Your task to perform on an android device: change the upload size in google photos Image 0: 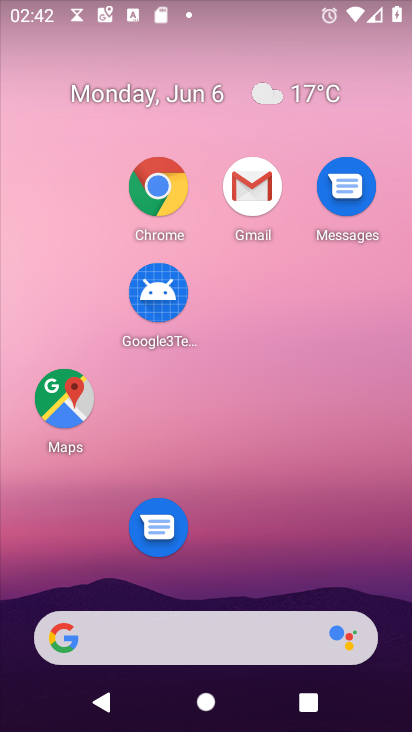
Step 0: drag from (361, 447) to (337, 174)
Your task to perform on an android device: change the upload size in google photos Image 1: 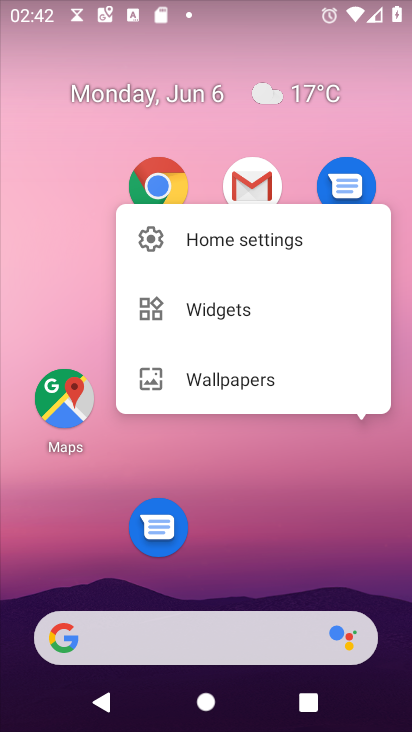
Step 1: click (333, 480)
Your task to perform on an android device: change the upload size in google photos Image 2: 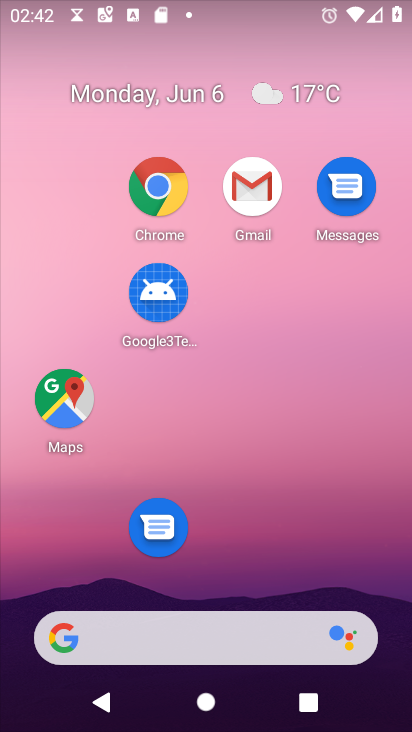
Step 2: drag from (336, 518) to (295, 65)
Your task to perform on an android device: change the upload size in google photos Image 3: 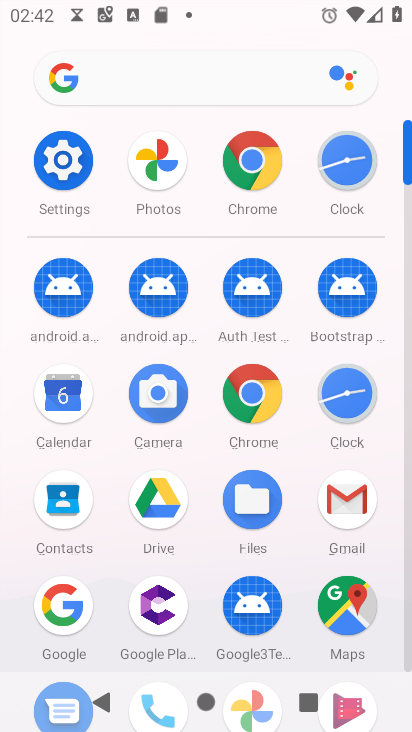
Step 3: click (406, 544)
Your task to perform on an android device: change the upload size in google photos Image 4: 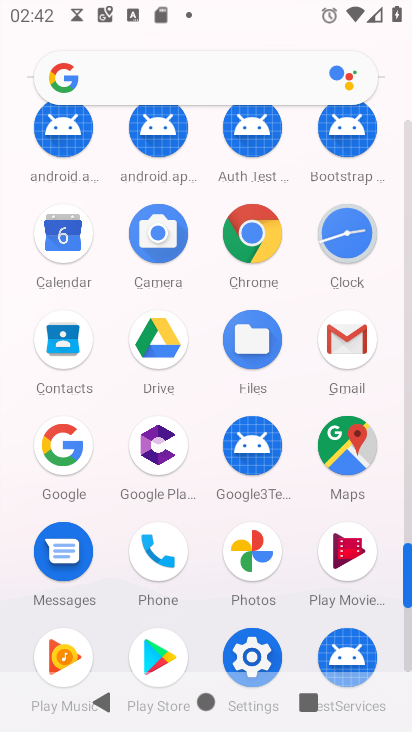
Step 4: click (230, 554)
Your task to perform on an android device: change the upload size in google photos Image 5: 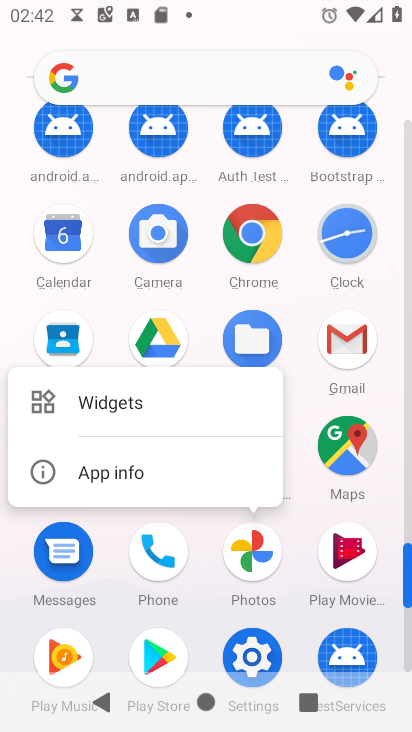
Step 5: click (241, 557)
Your task to perform on an android device: change the upload size in google photos Image 6: 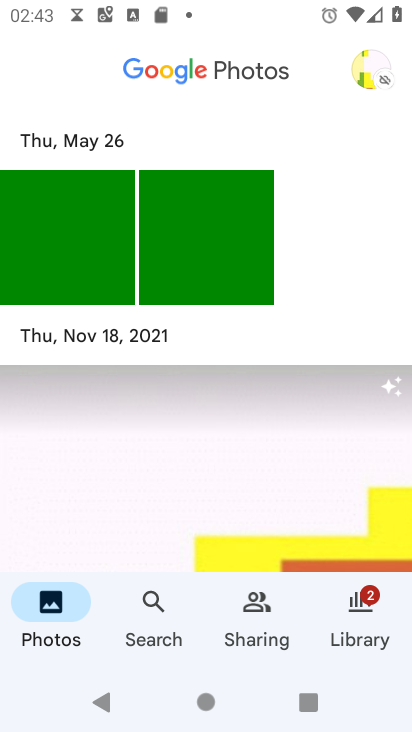
Step 6: click (234, 506)
Your task to perform on an android device: change the upload size in google photos Image 7: 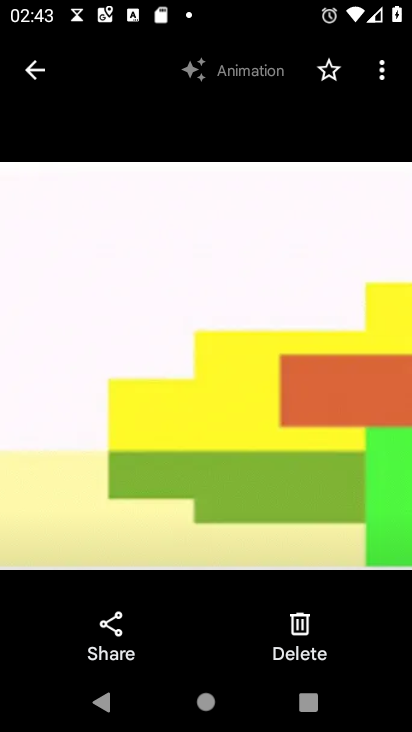
Step 7: click (387, 64)
Your task to perform on an android device: change the upload size in google photos Image 8: 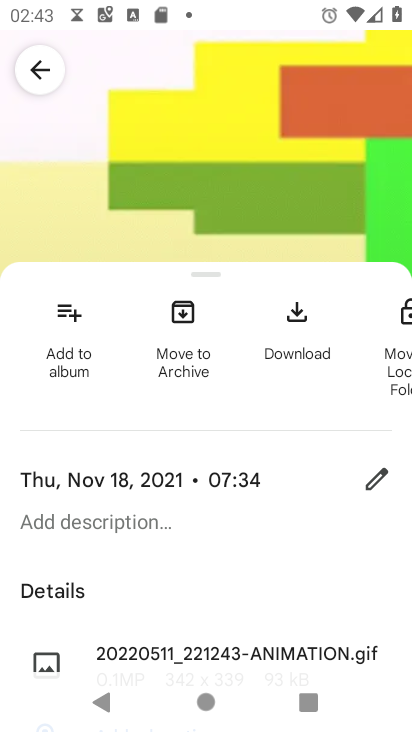
Step 8: click (278, 70)
Your task to perform on an android device: change the upload size in google photos Image 9: 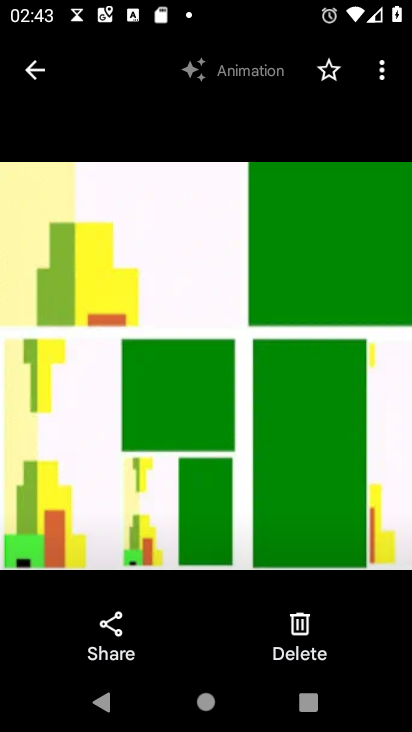
Step 9: click (35, 74)
Your task to perform on an android device: change the upload size in google photos Image 10: 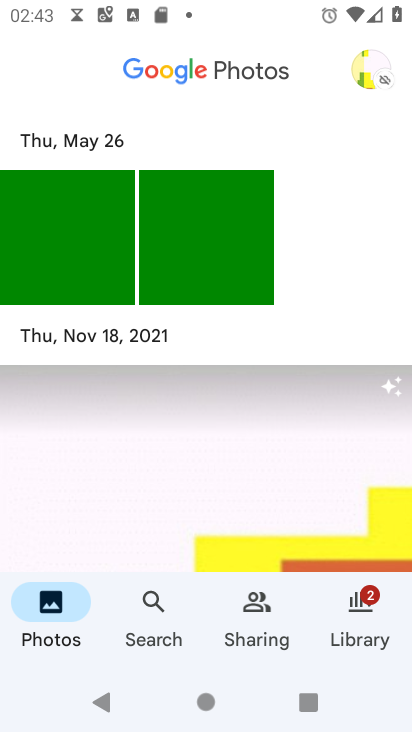
Step 10: click (375, 70)
Your task to perform on an android device: change the upload size in google photos Image 11: 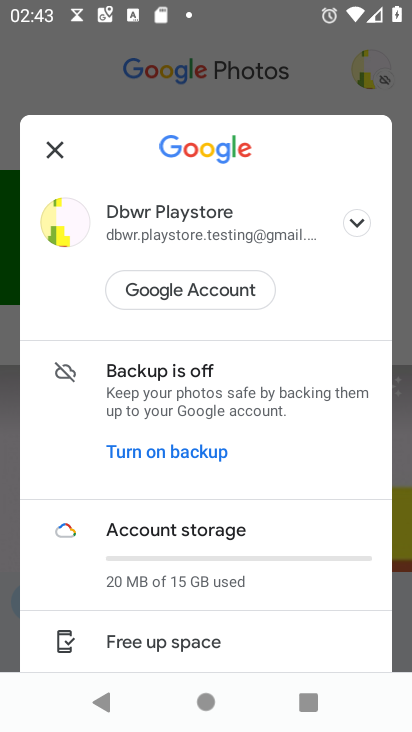
Step 11: click (264, 480)
Your task to perform on an android device: change the upload size in google photos Image 12: 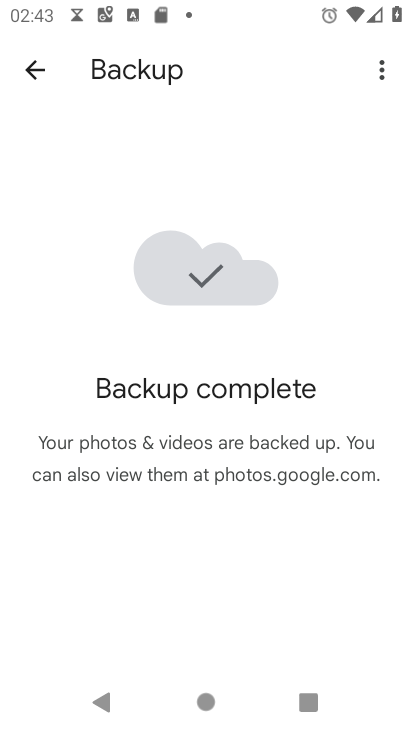
Step 12: task complete